Your task to perform on an android device: create a new album in the google photos Image 0: 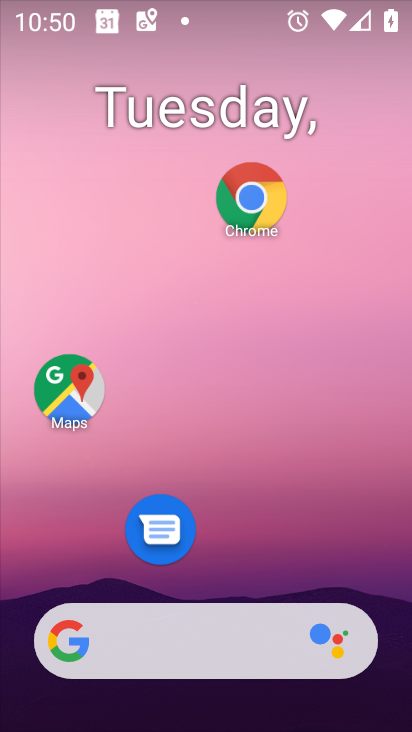
Step 0: drag from (278, 485) to (297, 158)
Your task to perform on an android device: create a new album in the google photos Image 1: 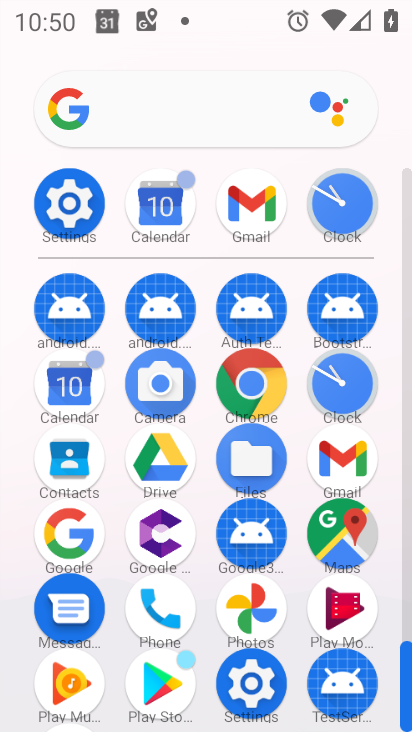
Step 1: click (269, 624)
Your task to perform on an android device: create a new album in the google photos Image 2: 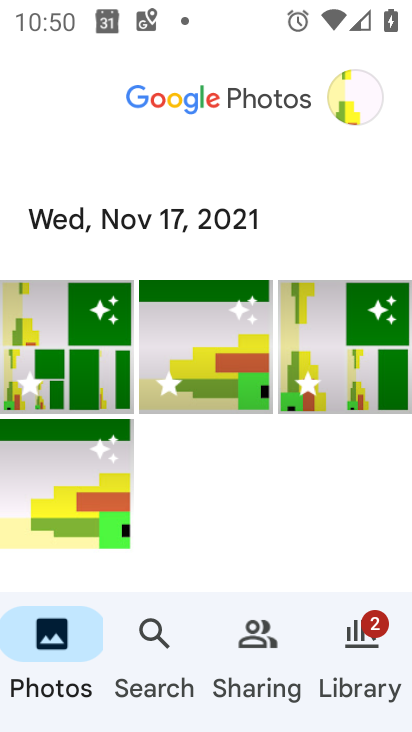
Step 2: click (354, 86)
Your task to perform on an android device: create a new album in the google photos Image 3: 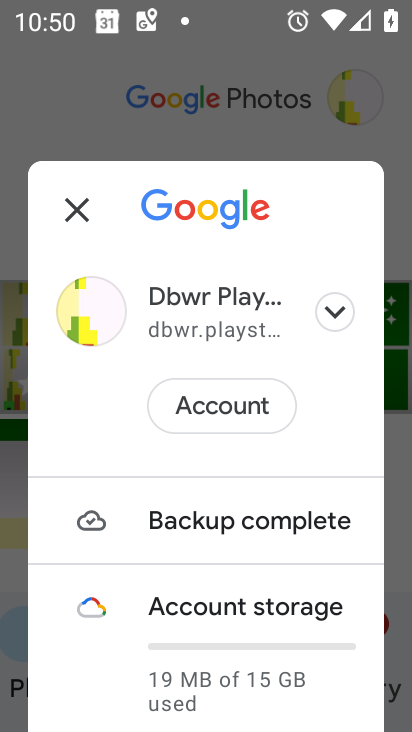
Step 3: click (85, 201)
Your task to perform on an android device: create a new album in the google photos Image 4: 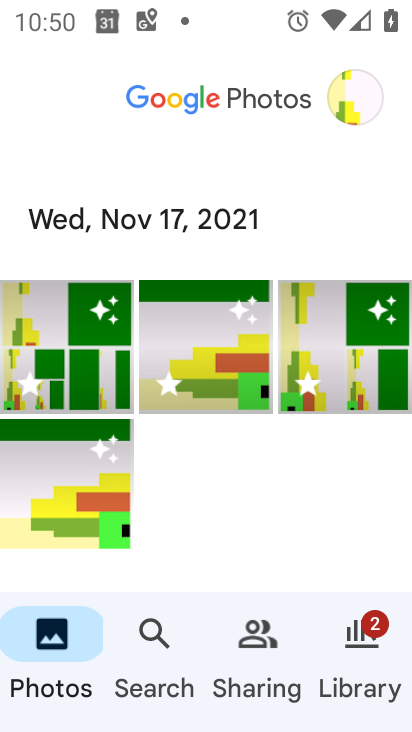
Step 4: click (347, 650)
Your task to perform on an android device: create a new album in the google photos Image 5: 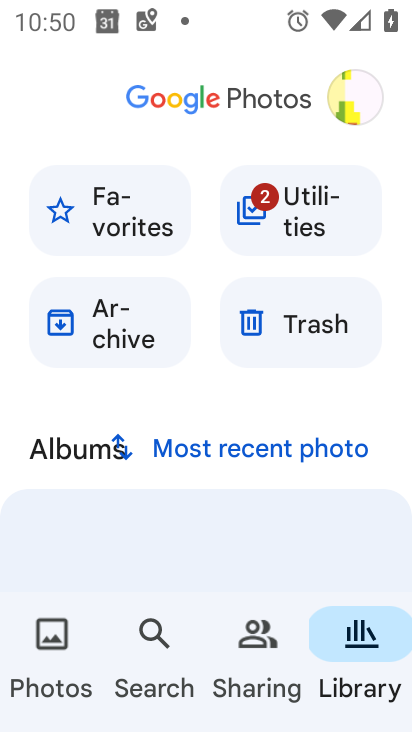
Step 5: click (70, 448)
Your task to perform on an android device: create a new album in the google photos Image 6: 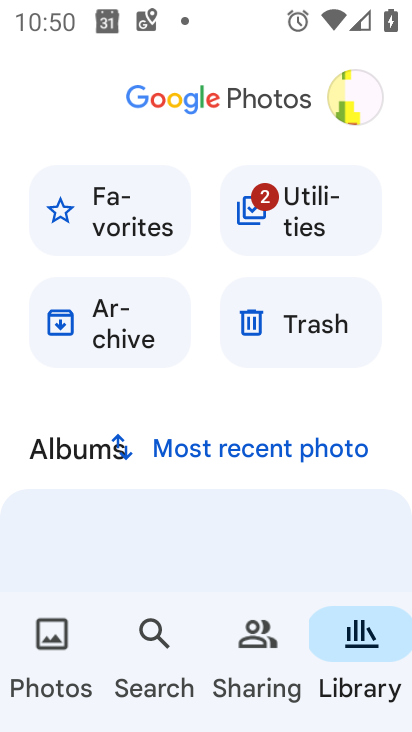
Step 6: click (93, 542)
Your task to perform on an android device: create a new album in the google photos Image 7: 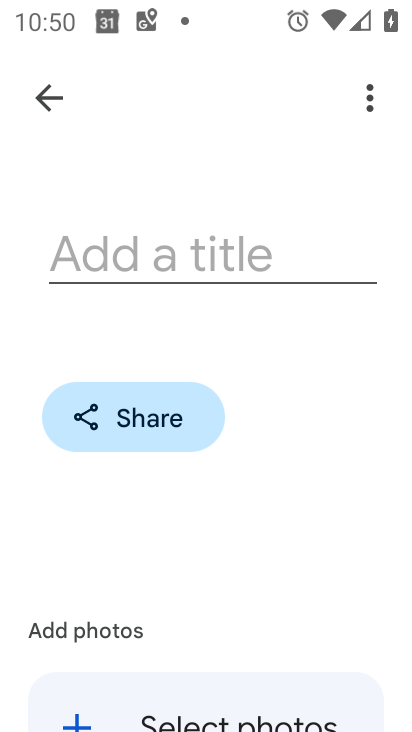
Step 7: click (112, 254)
Your task to perform on an android device: create a new album in the google photos Image 8: 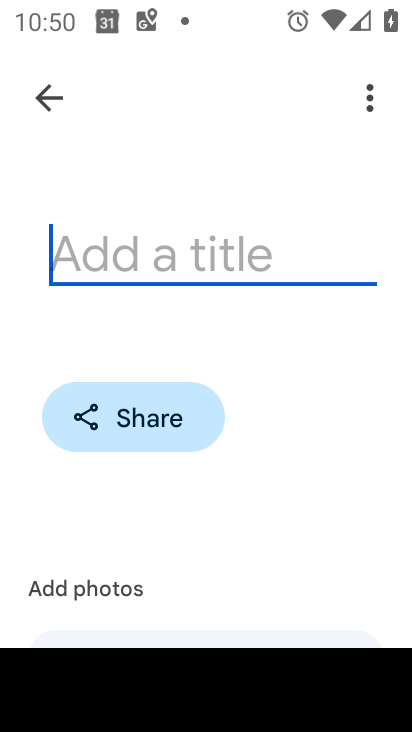
Step 8: type "fdsfs"
Your task to perform on an android device: create a new album in the google photos Image 9: 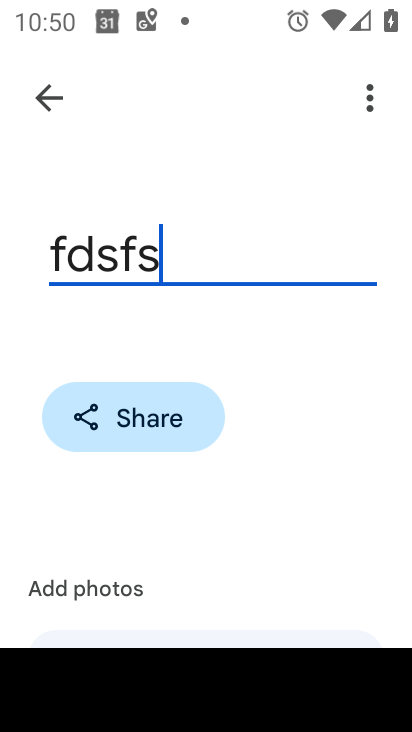
Step 9: click (56, 591)
Your task to perform on an android device: create a new album in the google photos Image 10: 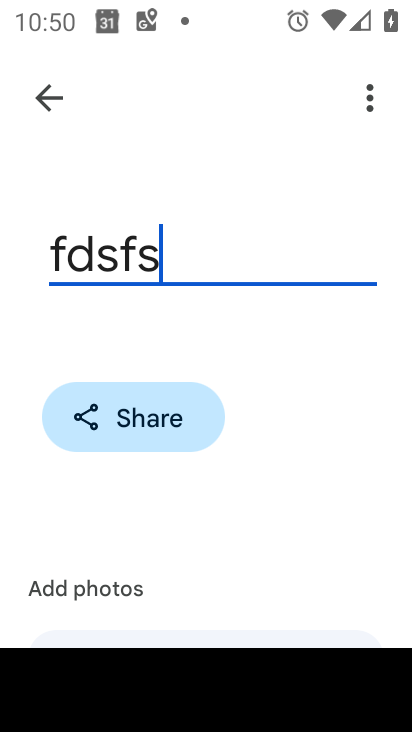
Step 10: click (108, 581)
Your task to perform on an android device: create a new album in the google photos Image 11: 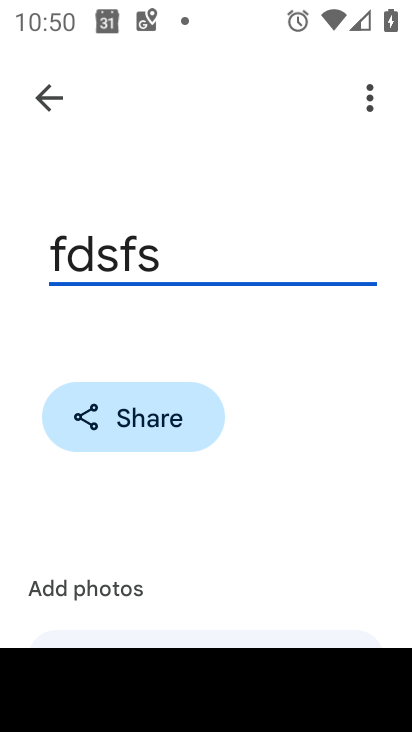
Step 11: task complete